Your task to perform on an android device: toggle pop-ups in chrome Image 0: 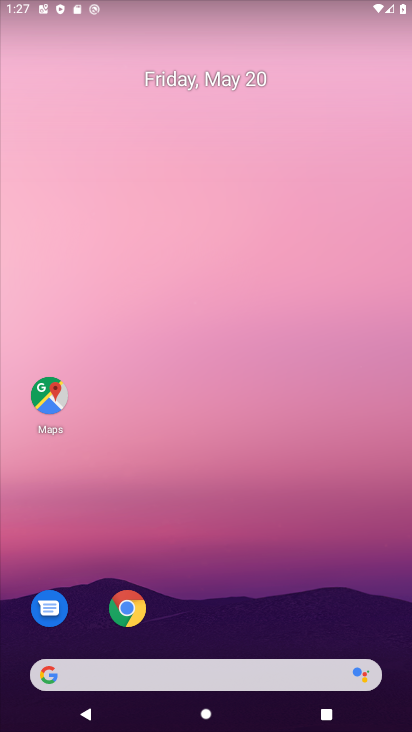
Step 0: click (129, 615)
Your task to perform on an android device: toggle pop-ups in chrome Image 1: 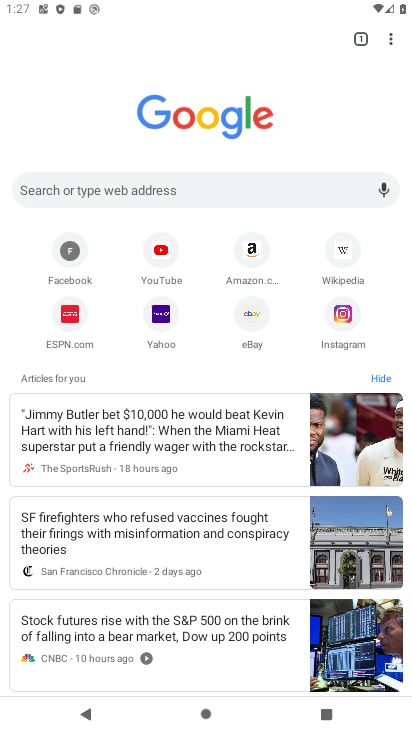
Step 1: click (393, 37)
Your task to perform on an android device: toggle pop-ups in chrome Image 2: 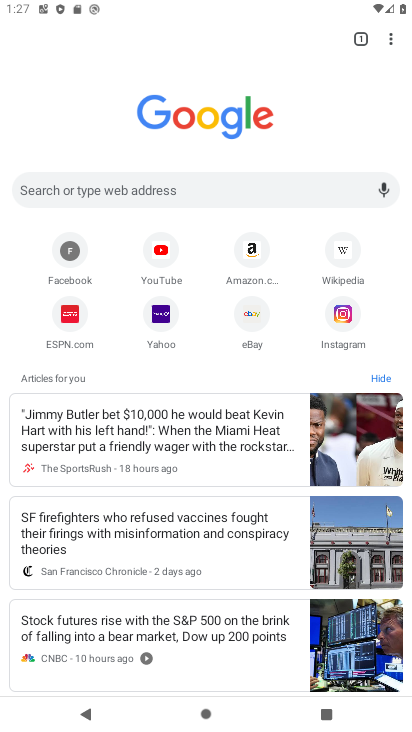
Step 2: drag from (388, 36) to (235, 331)
Your task to perform on an android device: toggle pop-ups in chrome Image 3: 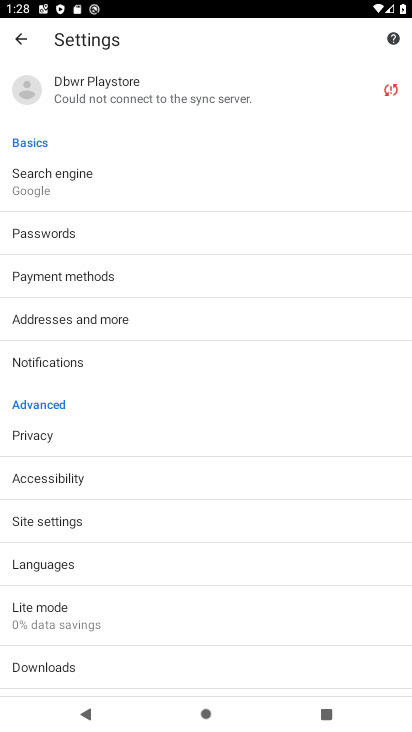
Step 3: click (76, 527)
Your task to perform on an android device: toggle pop-ups in chrome Image 4: 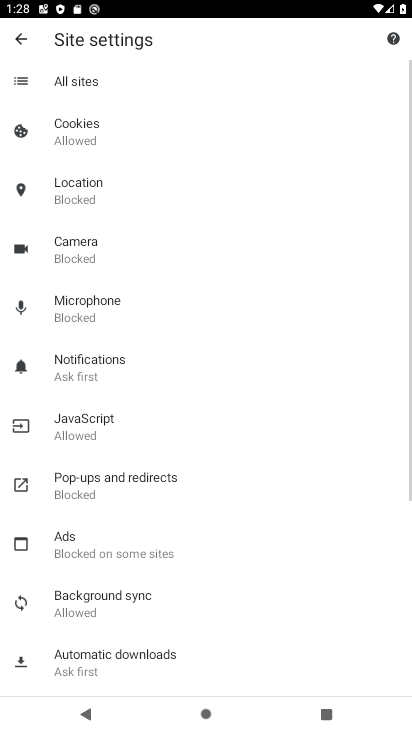
Step 4: click (112, 488)
Your task to perform on an android device: toggle pop-ups in chrome Image 5: 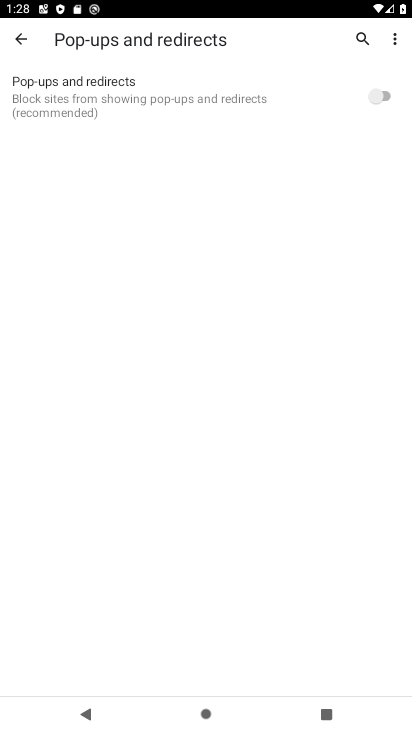
Step 5: click (374, 91)
Your task to perform on an android device: toggle pop-ups in chrome Image 6: 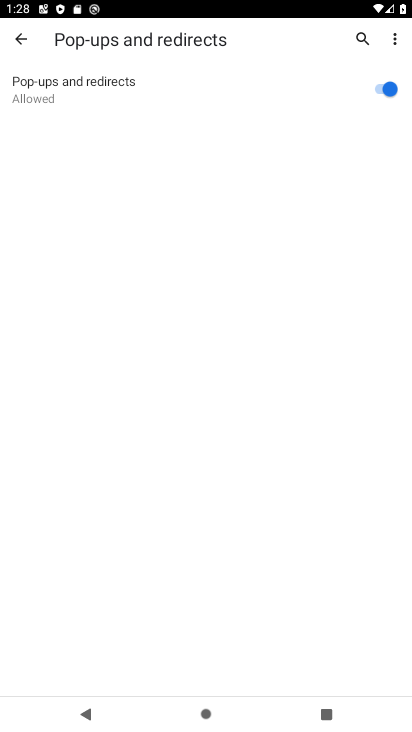
Step 6: task complete